Your task to perform on an android device: Open internet settings Image 0: 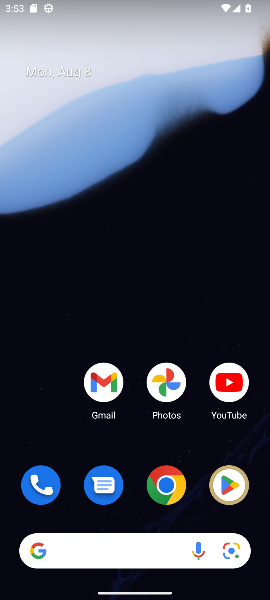
Step 0: press back button
Your task to perform on an android device: Open internet settings Image 1: 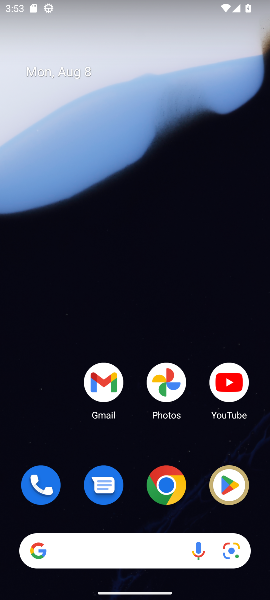
Step 1: drag from (137, 532) to (90, 179)
Your task to perform on an android device: Open internet settings Image 2: 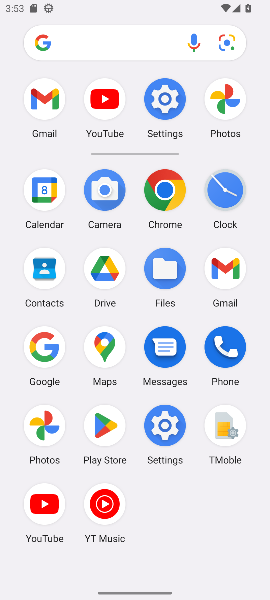
Step 2: click (225, 197)
Your task to perform on an android device: Open internet settings Image 3: 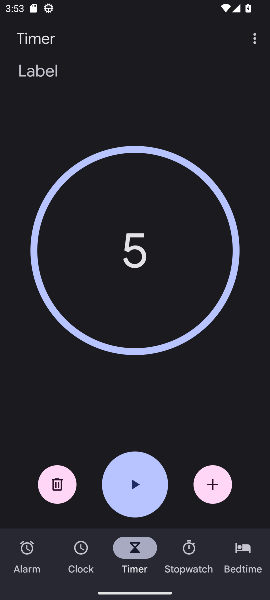
Step 3: click (132, 571)
Your task to perform on an android device: Open internet settings Image 4: 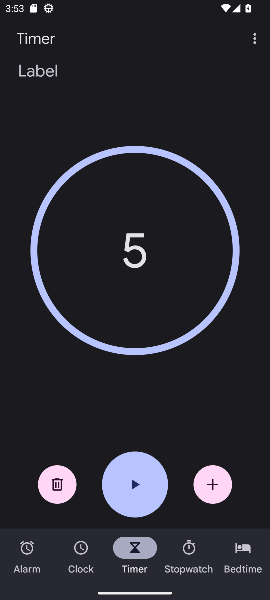
Step 4: click (135, 569)
Your task to perform on an android device: Open internet settings Image 5: 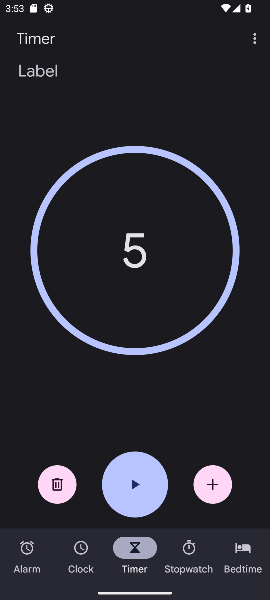
Step 5: click (136, 564)
Your task to perform on an android device: Open internet settings Image 6: 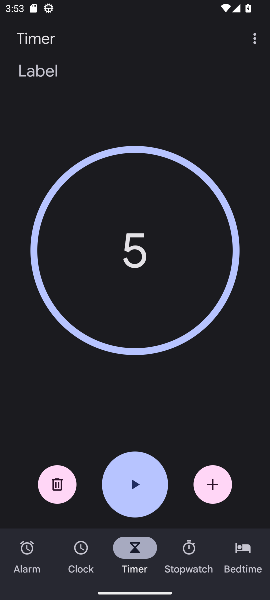
Step 6: click (134, 560)
Your task to perform on an android device: Open internet settings Image 7: 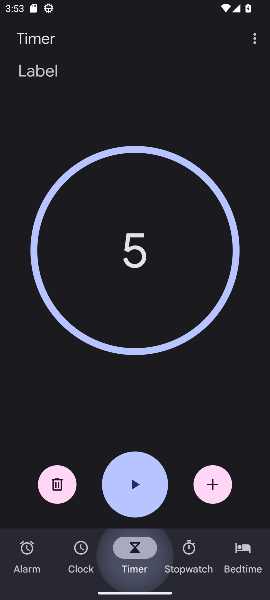
Step 7: click (134, 560)
Your task to perform on an android device: Open internet settings Image 8: 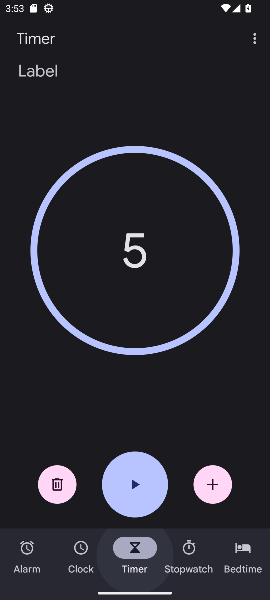
Step 8: click (135, 562)
Your task to perform on an android device: Open internet settings Image 9: 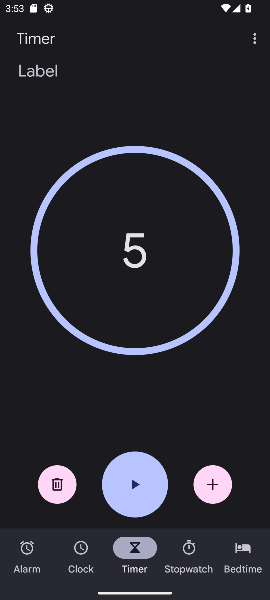
Step 9: click (136, 563)
Your task to perform on an android device: Open internet settings Image 10: 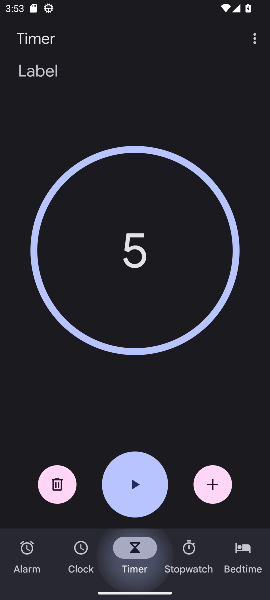
Step 10: click (138, 567)
Your task to perform on an android device: Open internet settings Image 11: 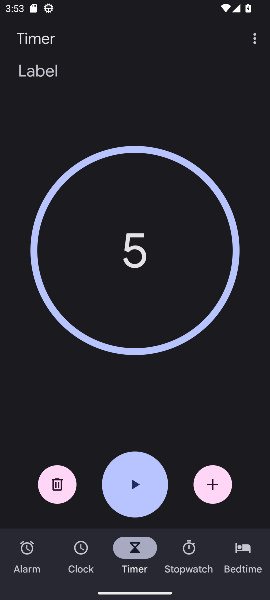
Step 11: task complete